Your task to perform on an android device: What's on Reddit Image 0: 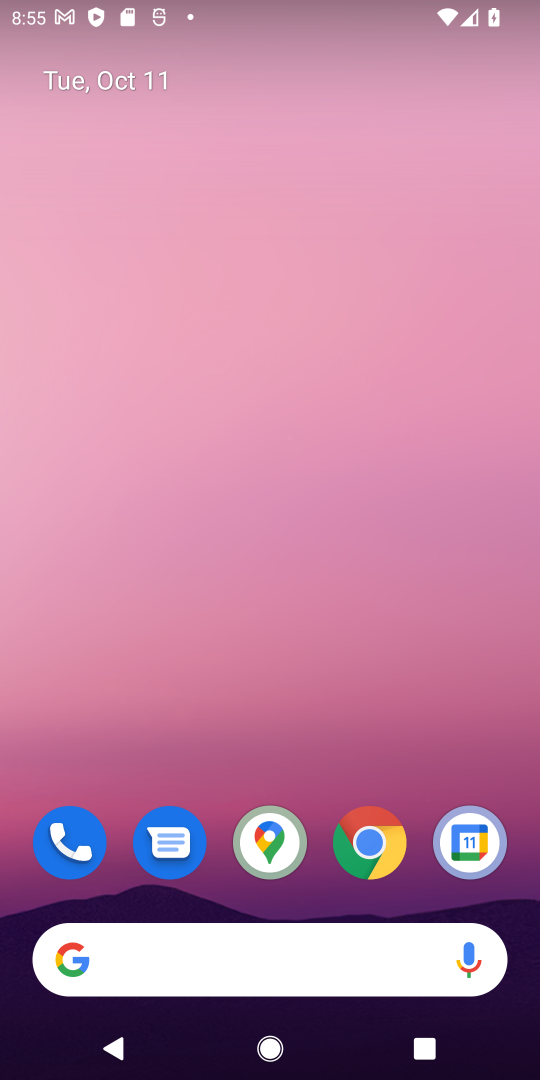
Step 0: drag from (243, 856) to (122, 47)
Your task to perform on an android device: What's on Reddit Image 1: 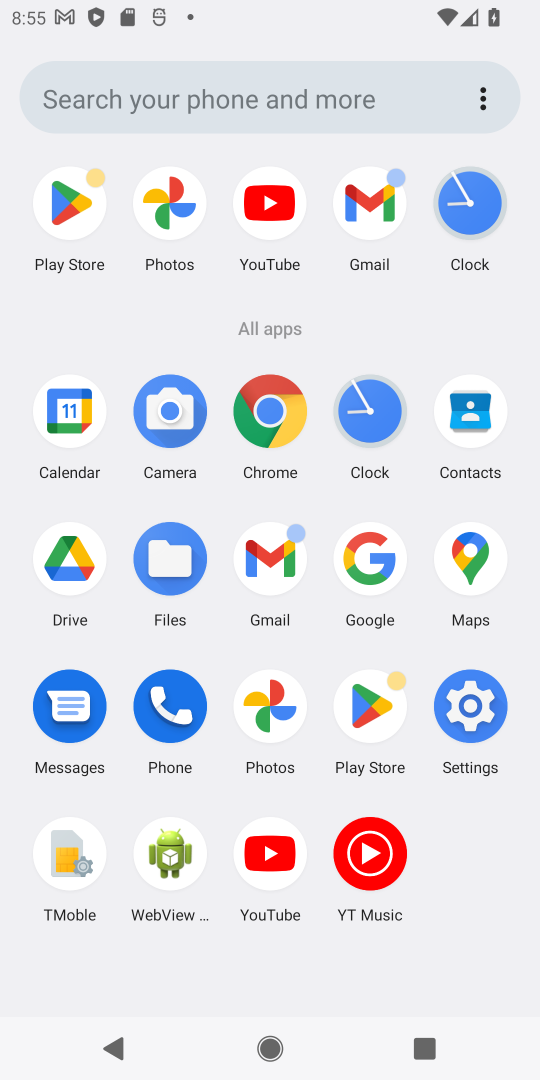
Step 1: click (348, 697)
Your task to perform on an android device: What's on Reddit Image 2: 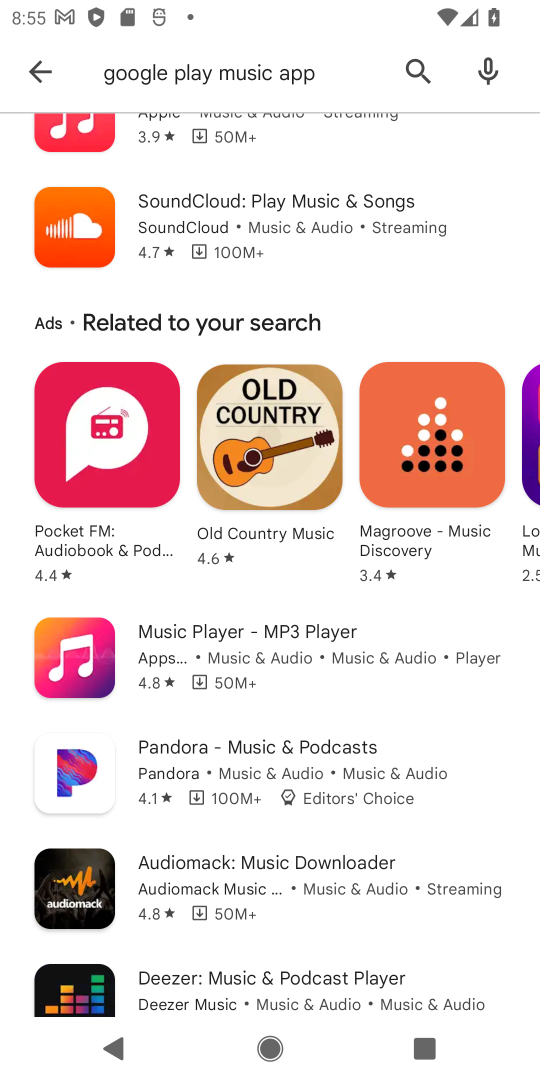
Step 2: click (45, 77)
Your task to perform on an android device: What's on Reddit Image 3: 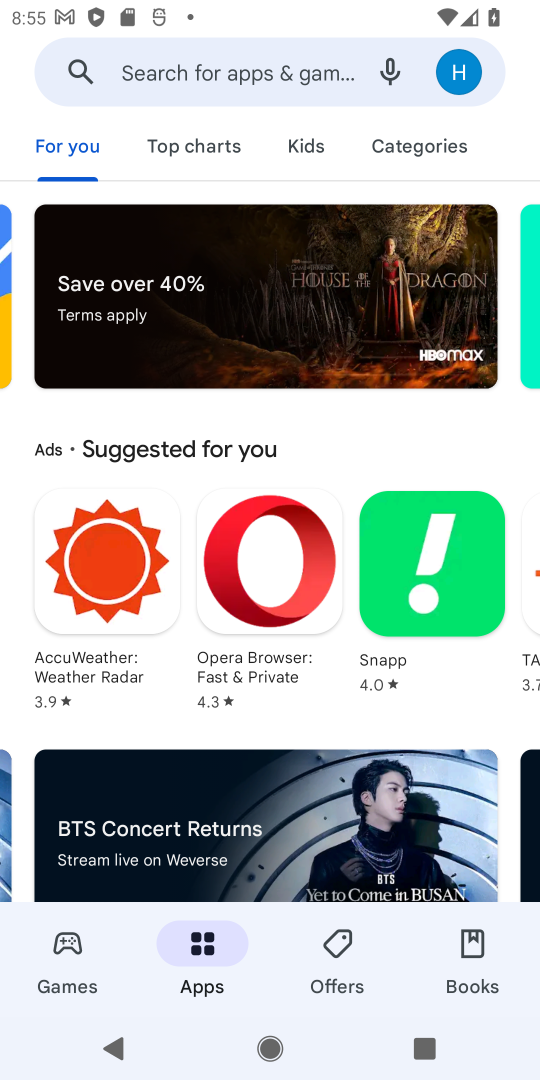
Step 3: click (228, 77)
Your task to perform on an android device: What's on Reddit Image 4: 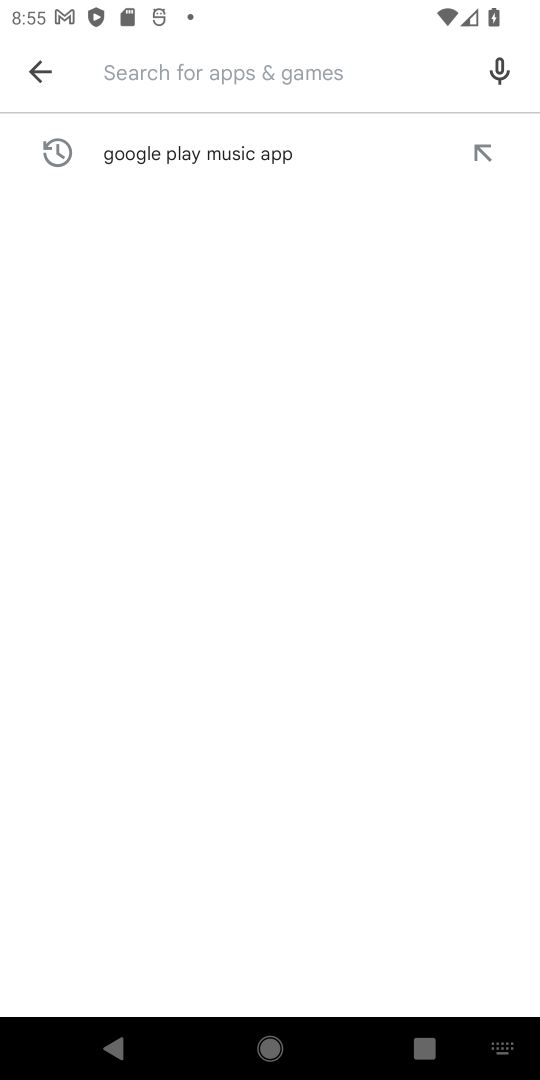
Step 4: type "reddit"
Your task to perform on an android device: What's on Reddit Image 5: 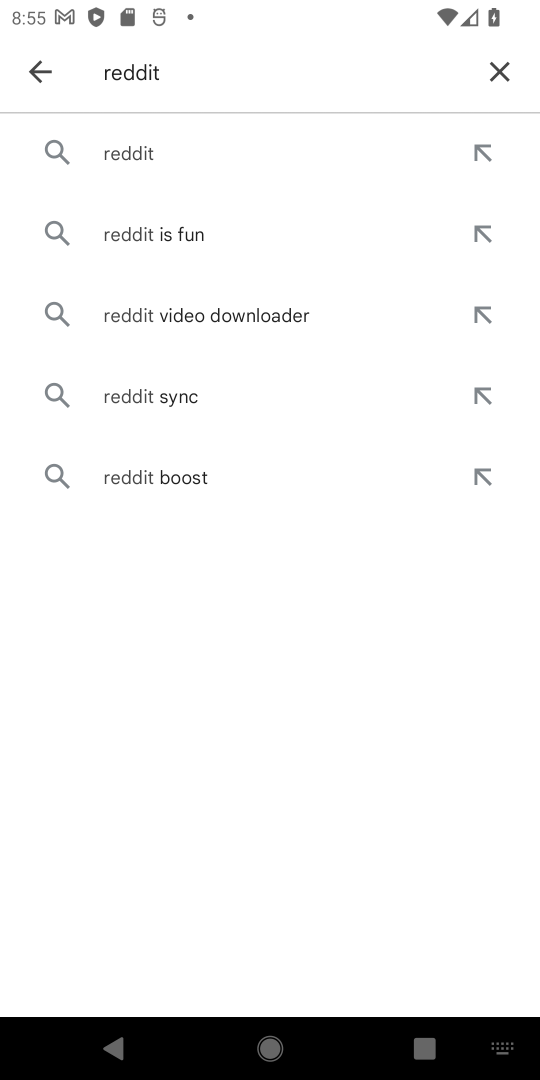
Step 5: click (128, 151)
Your task to perform on an android device: What's on Reddit Image 6: 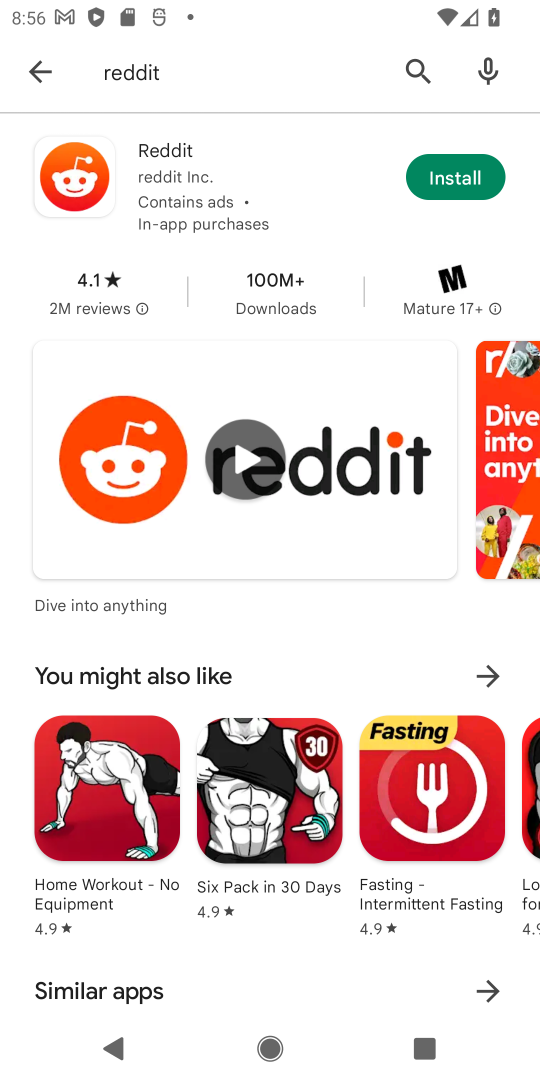
Step 6: click (447, 174)
Your task to perform on an android device: What's on Reddit Image 7: 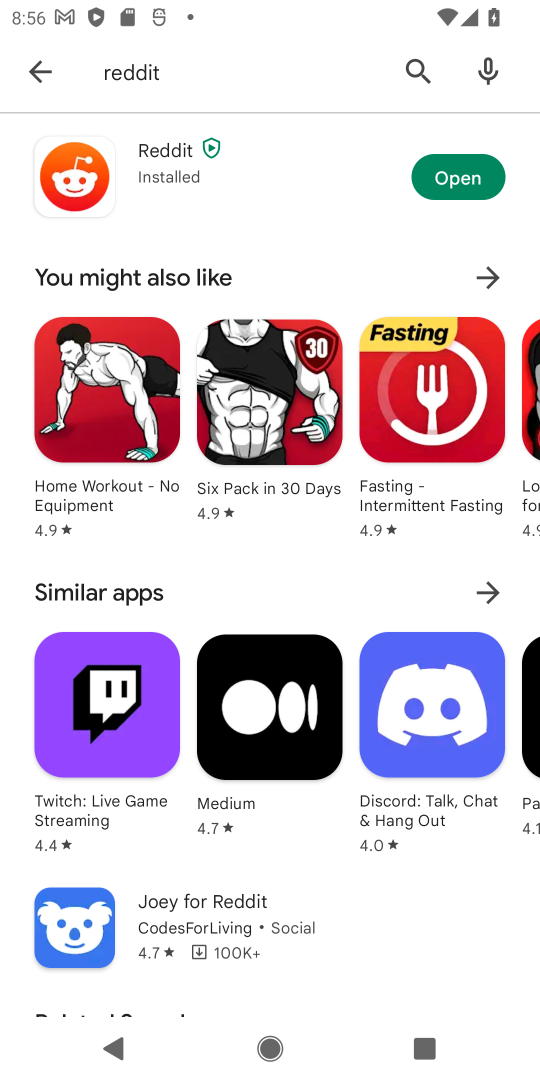
Step 7: click (447, 174)
Your task to perform on an android device: What's on Reddit Image 8: 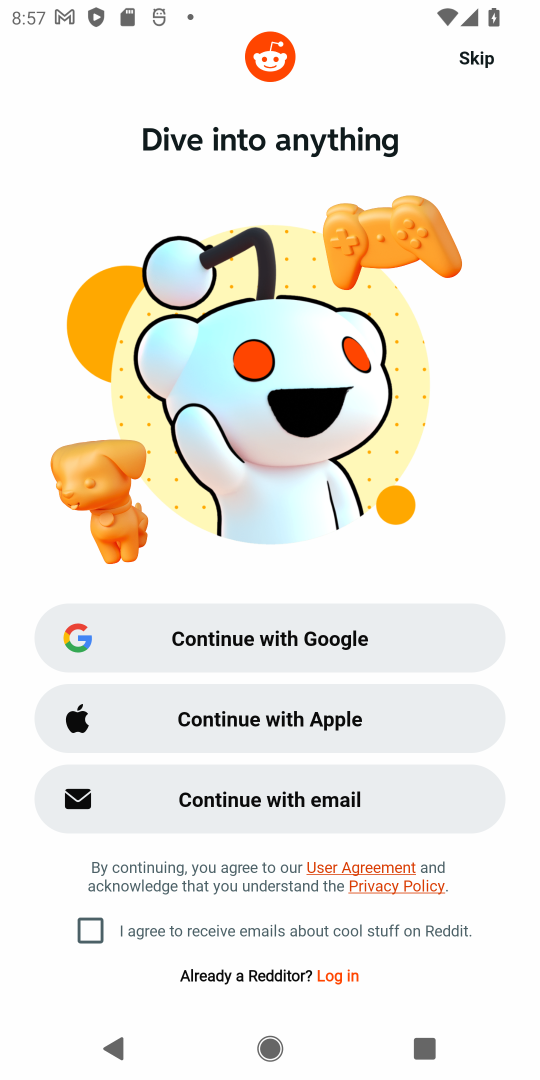
Step 8: drag from (385, 385) to (378, 258)
Your task to perform on an android device: What's on Reddit Image 9: 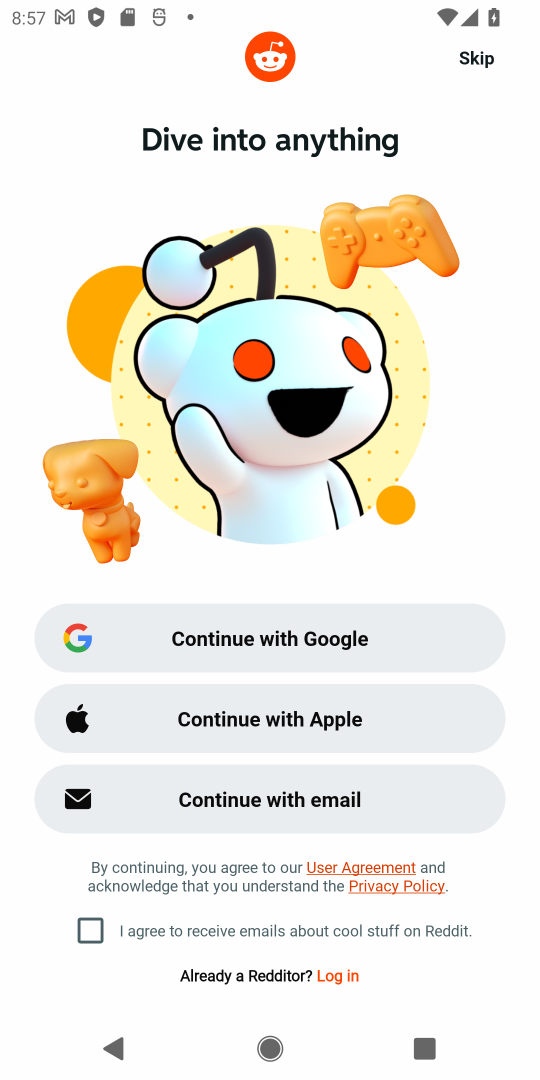
Step 9: click (487, 47)
Your task to perform on an android device: What's on Reddit Image 10: 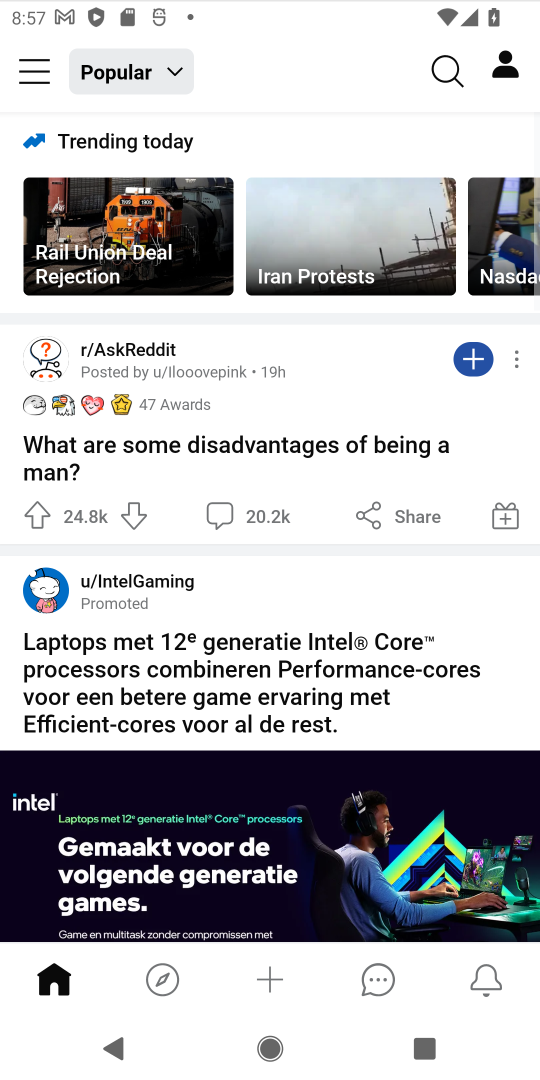
Step 10: task complete